Your task to perform on an android device: toggle improve location accuracy Image 0: 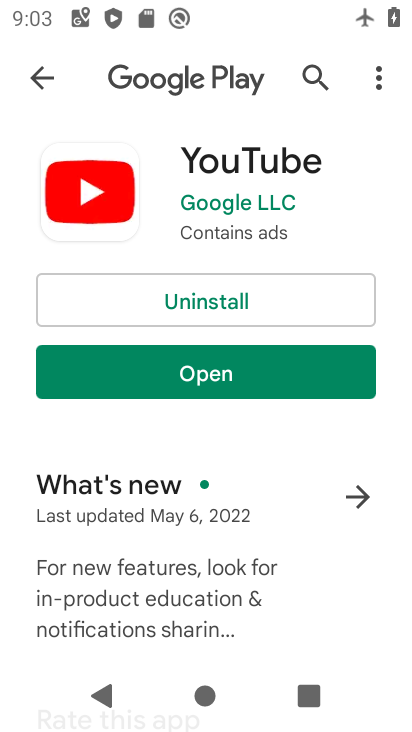
Step 0: press home button
Your task to perform on an android device: toggle improve location accuracy Image 1: 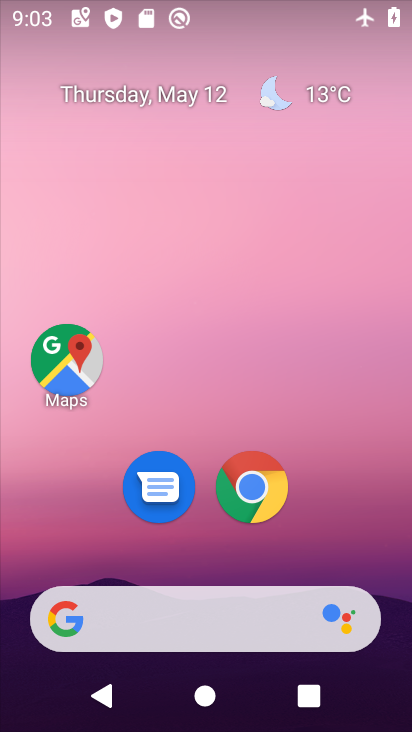
Step 1: drag from (366, 571) to (313, 15)
Your task to perform on an android device: toggle improve location accuracy Image 2: 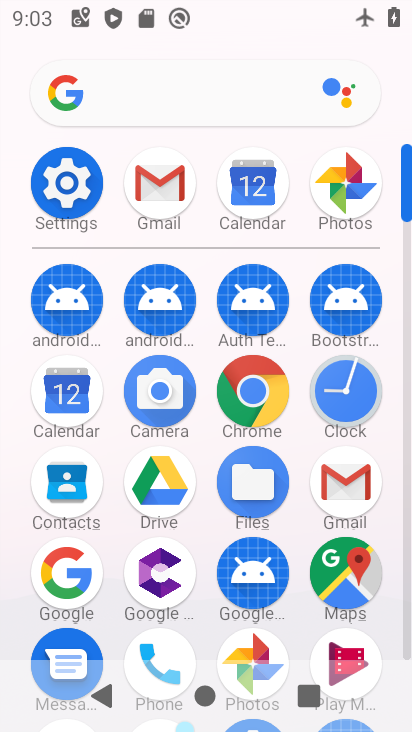
Step 2: click (62, 187)
Your task to perform on an android device: toggle improve location accuracy Image 3: 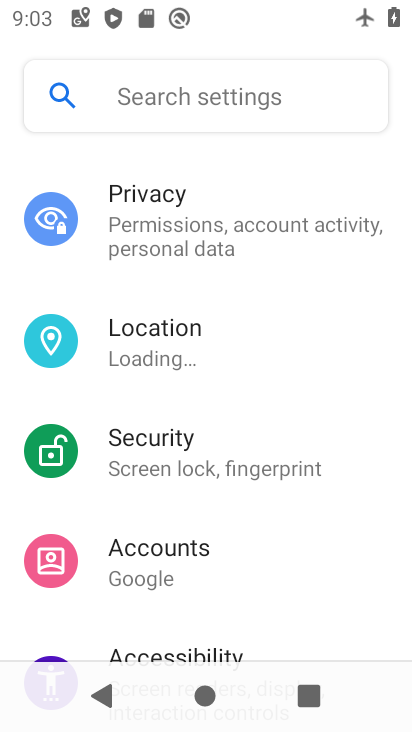
Step 3: click (150, 352)
Your task to perform on an android device: toggle improve location accuracy Image 4: 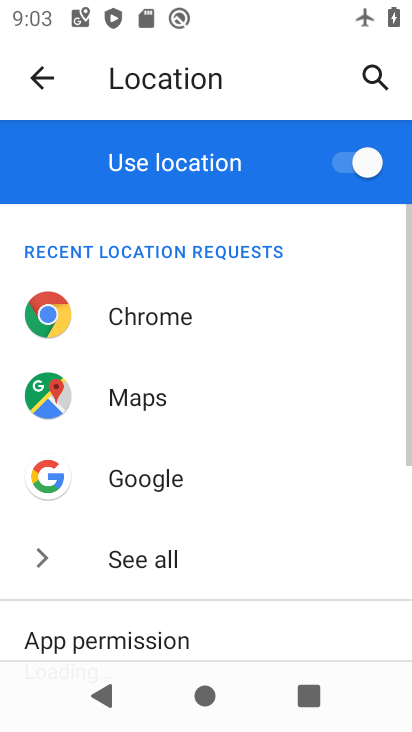
Step 4: drag from (196, 474) to (197, 48)
Your task to perform on an android device: toggle improve location accuracy Image 5: 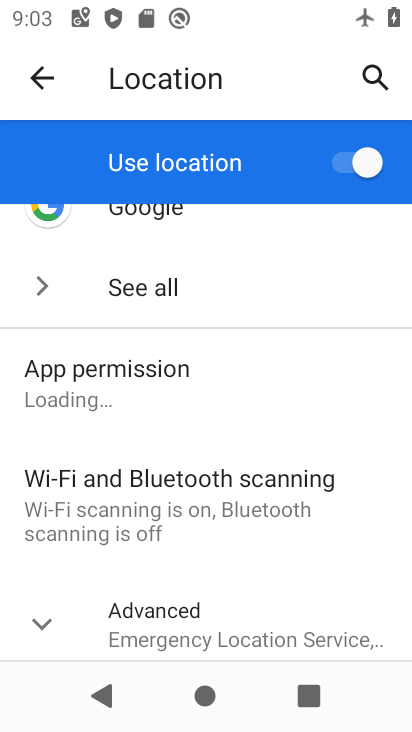
Step 5: click (52, 638)
Your task to perform on an android device: toggle improve location accuracy Image 6: 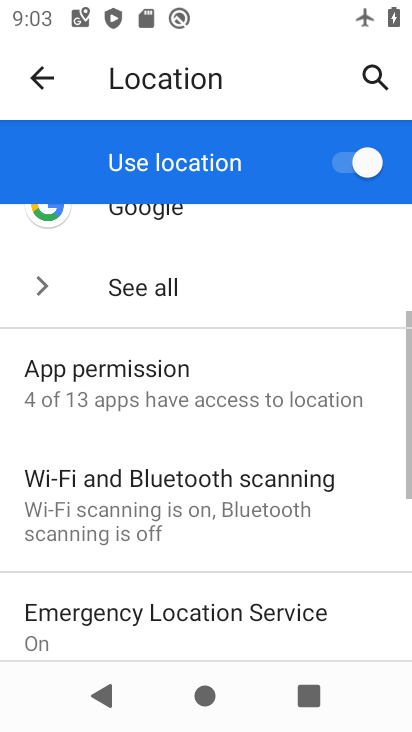
Step 6: drag from (156, 604) to (163, 194)
Your task to perform on an android device: toggle improve location accuracy Image 7: 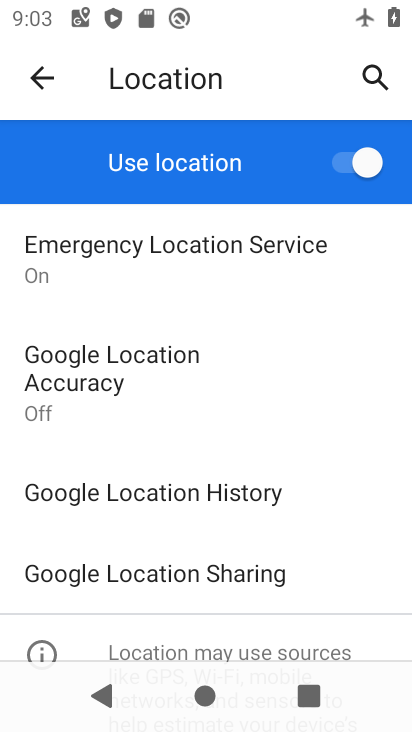
Step 7: click (106, 389)
Your task to perform on an android device: toggle improve location accuracy Image 8: 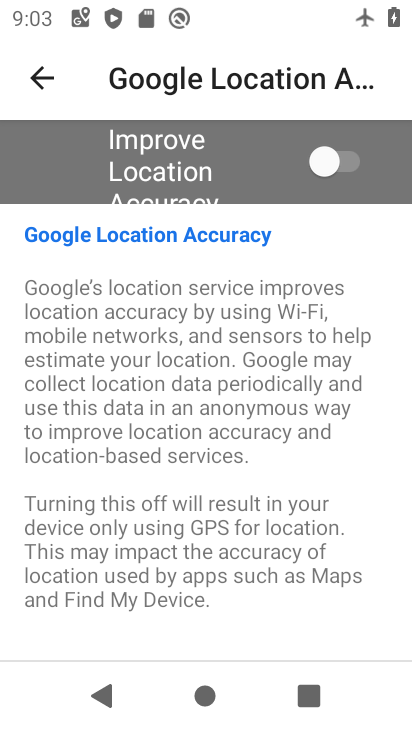
Step 8: click (341, 157)
Your task to perform on an android device: toggle improve location accuracy Image 9: 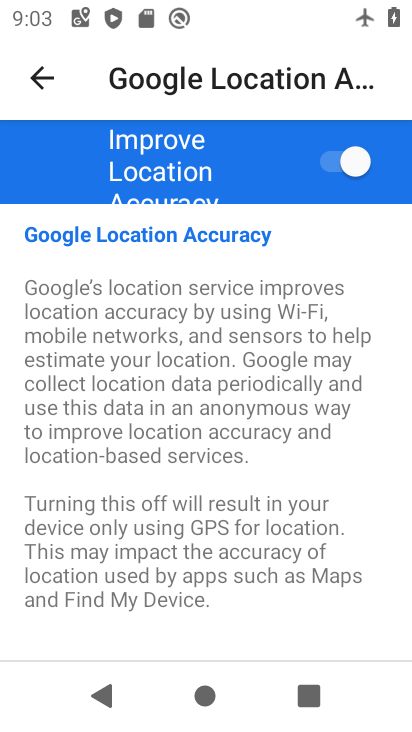
Step 9: task complete